Your task to perform on an android device: Open battery settings Image 0: 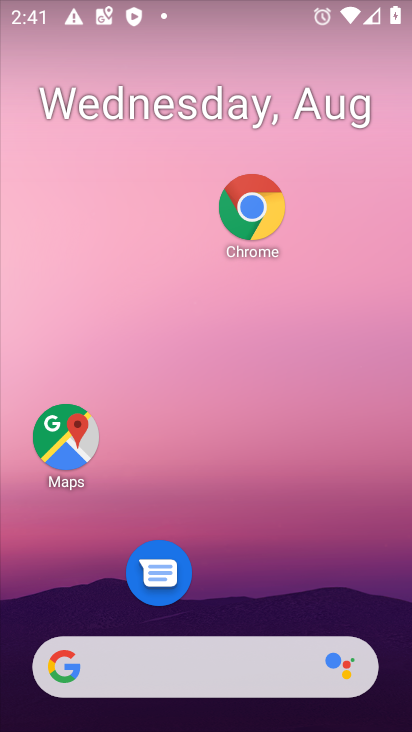
Step 0: click (299, 455)
Your task to perform on an android device: Open battery settings Image 1: 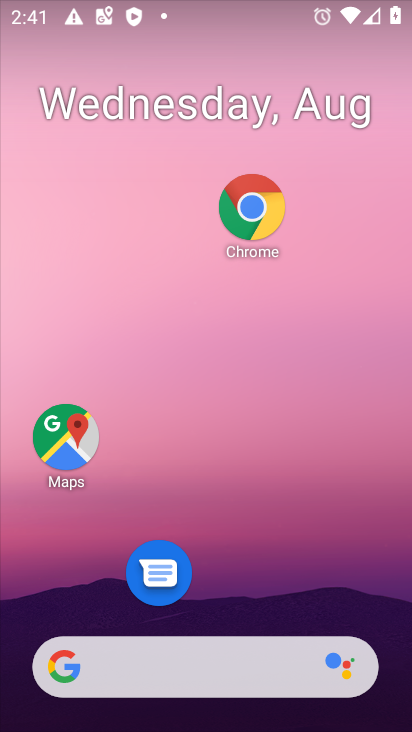
Step 1: drag from (272, 682) to (379, 198)
Your task to perform on an android device: Open battery settings Image 2: 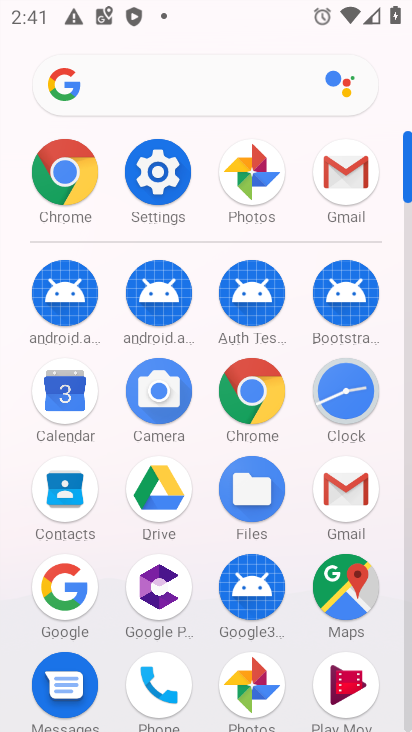
Step 2: click (187, 170)
Your task to perform on an android device: Open battery settings Image 3: 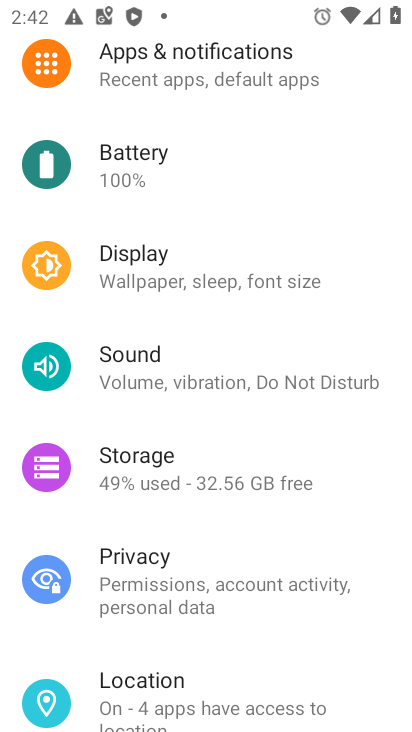
Step 3: click (177, 182)
Your task to perform on an android device: Open battery settings Image 4: 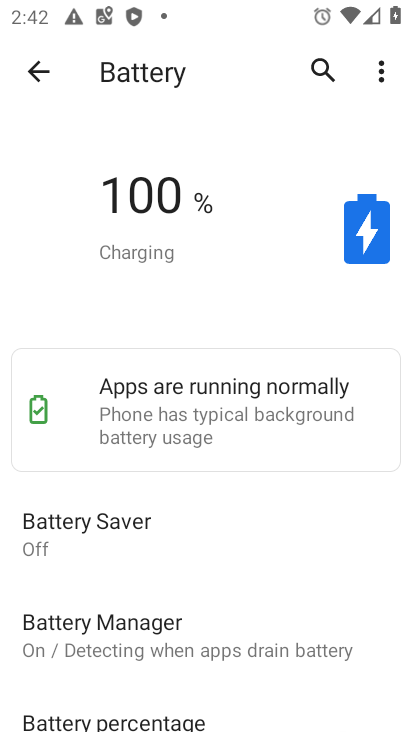
Step 4: task complete